Your task to perform on an android device: Open calendar and show me the first week of next month Image 0: 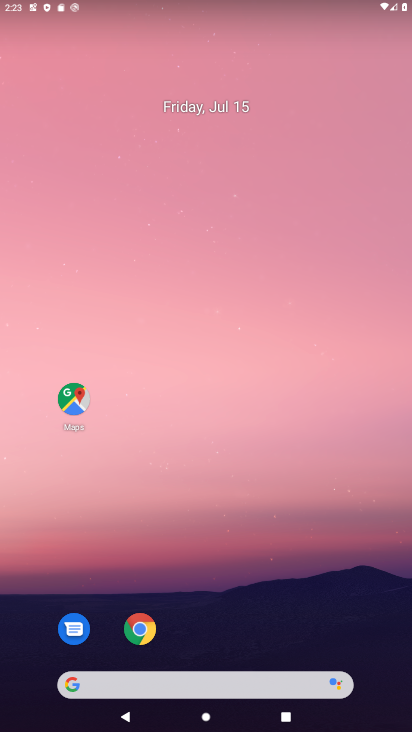
Step 0: drag from (222, 632) to (263, 149)
Your task to perform on an android device: Open calendar and show me the first week of next month Image 1: 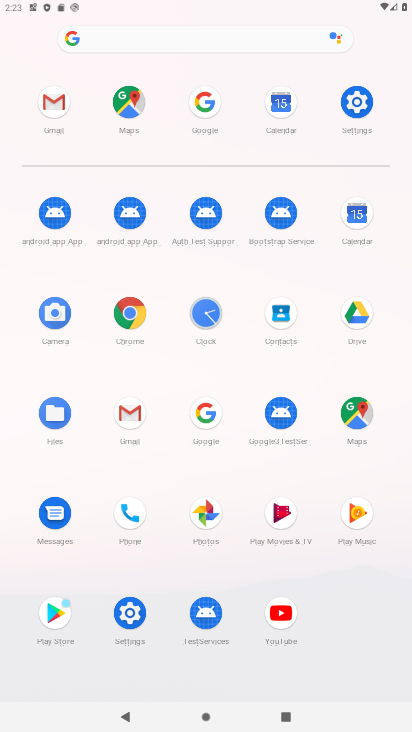
Step 1: click (356, 211)
Your task to perform on an android device: Open calendar and show me the first week of next month Image 2: 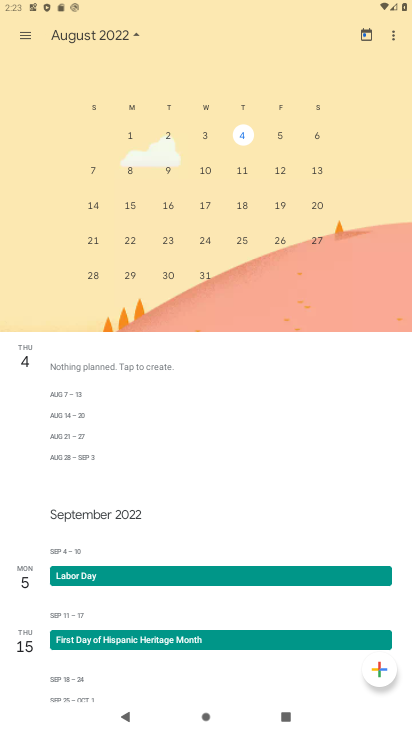
Step 2: task complete